Your task to perform on an android device: add a contact in the contacts app Image 0: 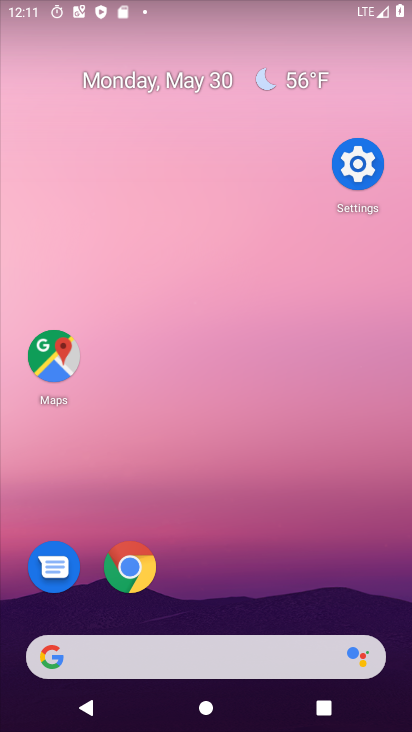
Step 0: drag from (349, 607) to (306, 207)
Your task to perform on an android device: add a contact in the contacts app Image 1: 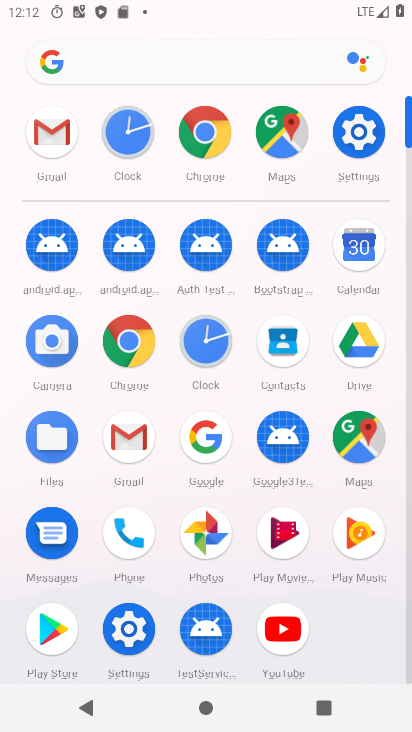
Step 1: click (306, 351)
Your task to perform on an android device: add a contact in the contacts app Image 2: 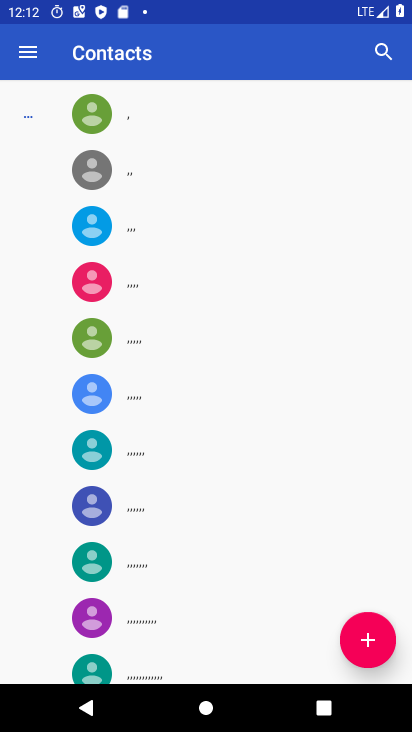
Step 2: click (355, 650)
Your task to perform on an android device: add a contact in the contacts app Image 3: 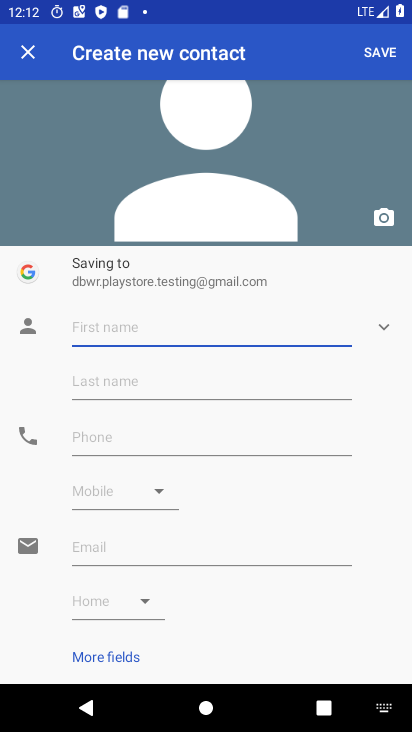
Step 3: click (154, 341)
Your task to perform on an android device: add a contact in the contacts app Image 4: 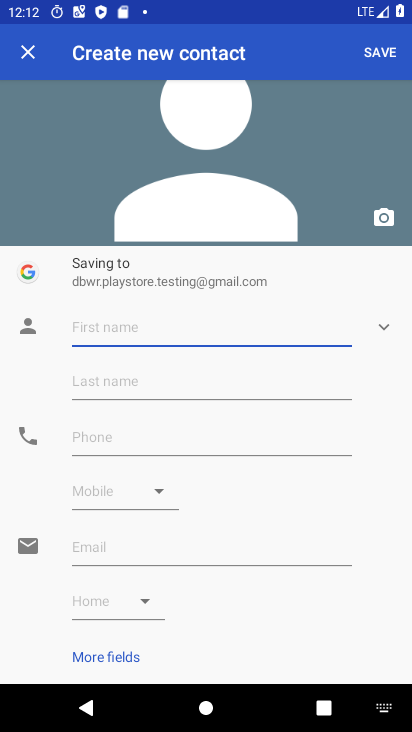
Step 4: type "ronit"
Your task to perform on an android device: add a contact in the contacts app Image 5: 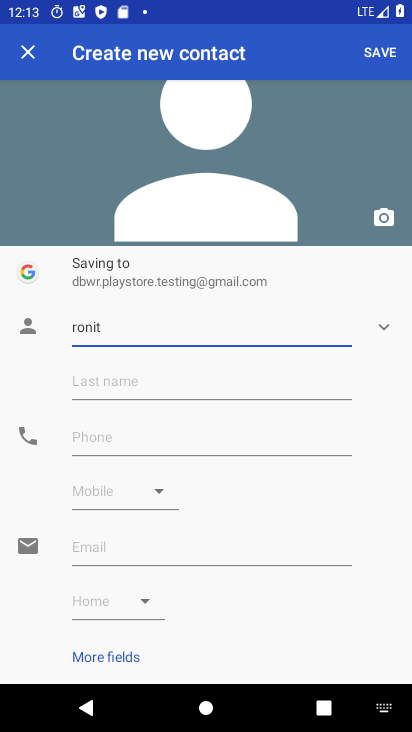
Step 5: click (133, 450)
Your task to perform on an android device: add a contact in the contacts app Image 6: 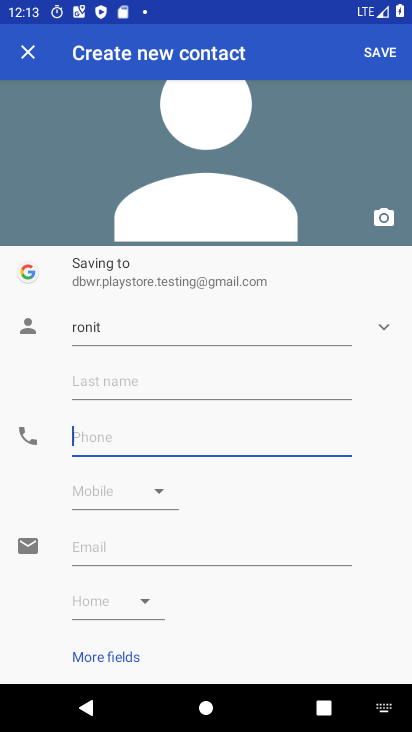
Step 6: click (128, 439)
Your task to perform on an android device: add a contact in the contacts app Image 7: 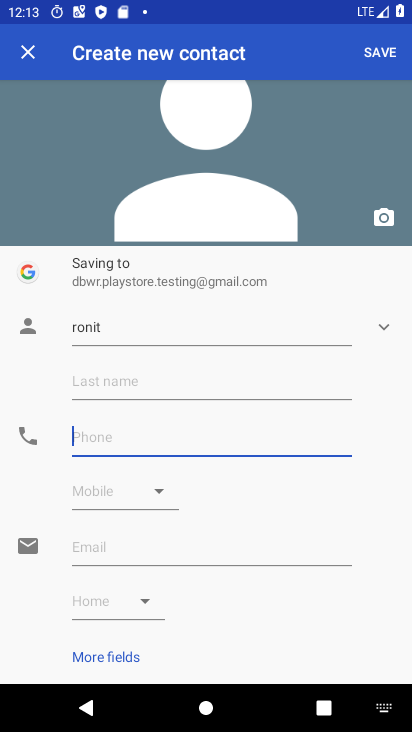
Step 7: type "20938043979492"
Your task to perform on an android device: add a contact in the contacts app Image 8: 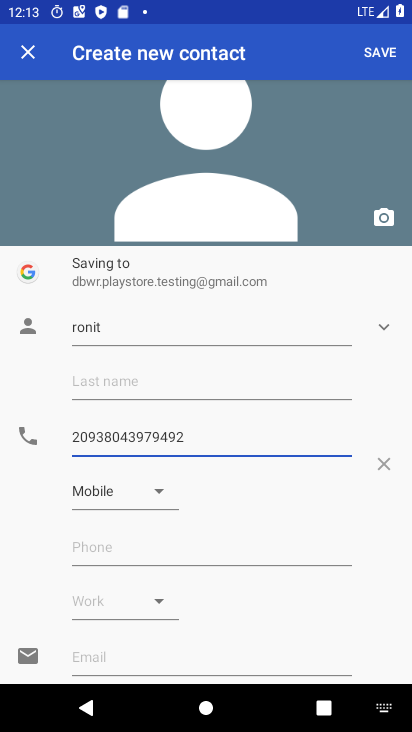
Step 8: click (396, 57)
Your task to perform on an android device: add a contact in the contacts app Image 9: 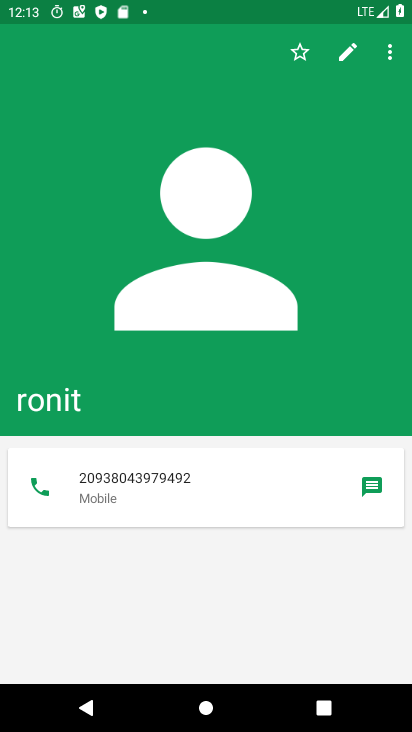
Step 9: task complete